Your task to perform on an android device: Go to location settings Image 0: 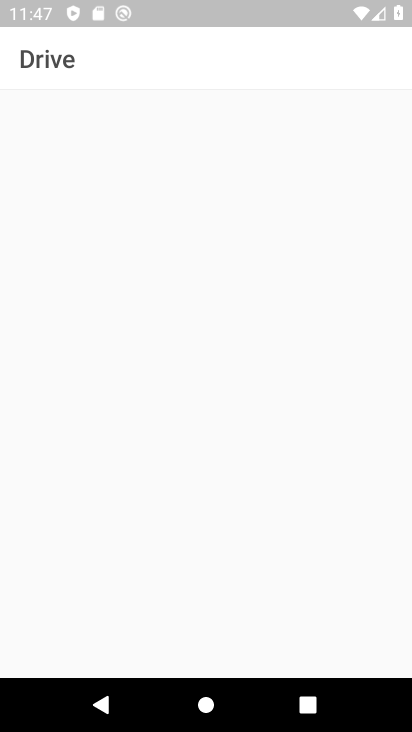
Step 0: press home button
Your task to perform on an android device: Go to location settings Image 1: 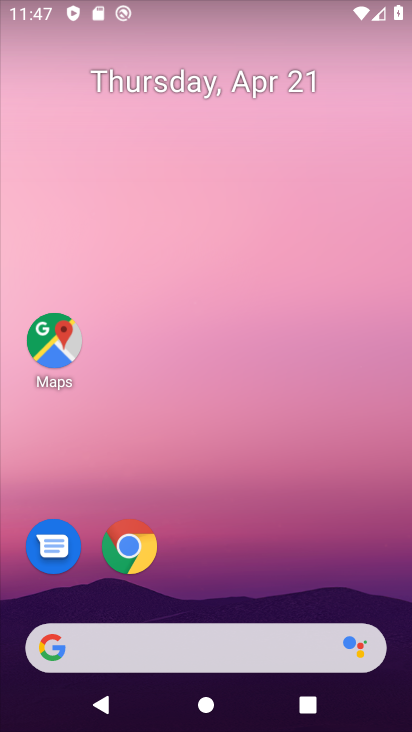
Step 1: drag from (212, 726) to (212, 82)
Your task to perform on an android device: Go to location settings Image 2: 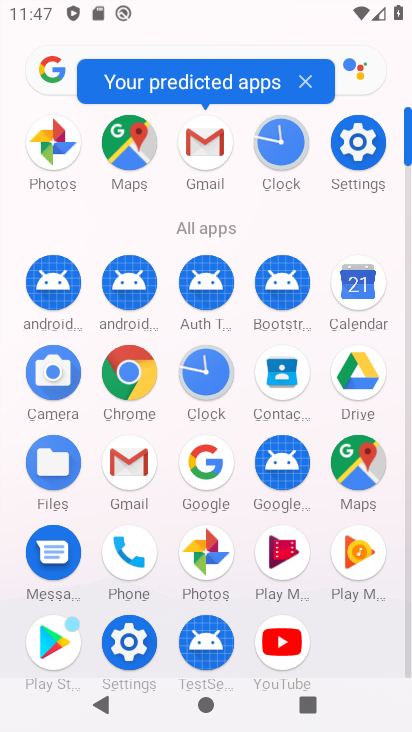
Step 2: click (357, 133)
Your task to perform on an android device: Go to location settings Image 3: 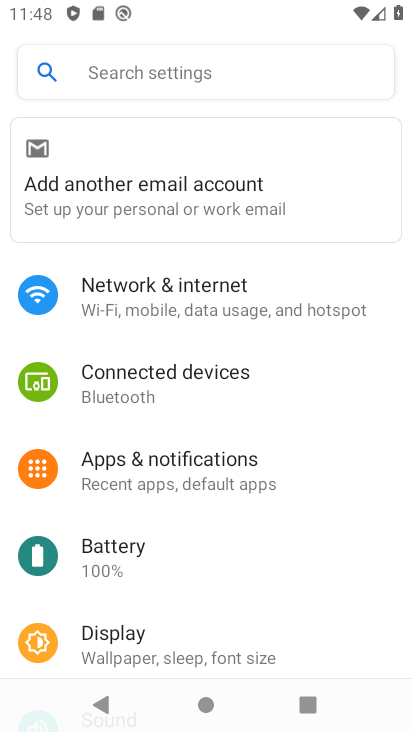
Step 3: drag from (191, 613) to (194, 269)
Your task to perform on an android device: Go to location settings Image 4: 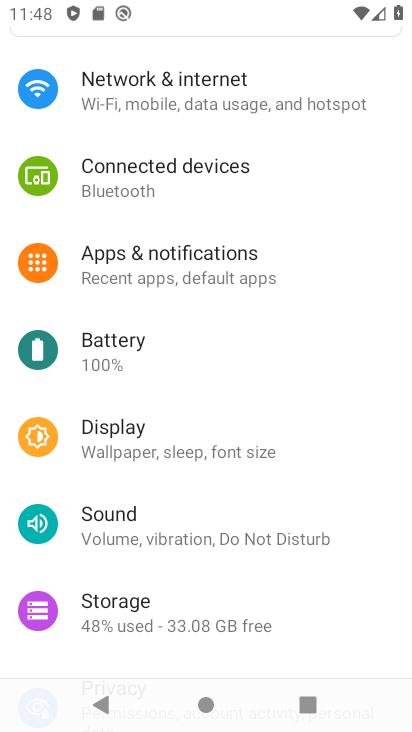
Step 4: drag from (189, 633) to (207, 276)
Your task to perform on an android device: Go to location settings Image 5: 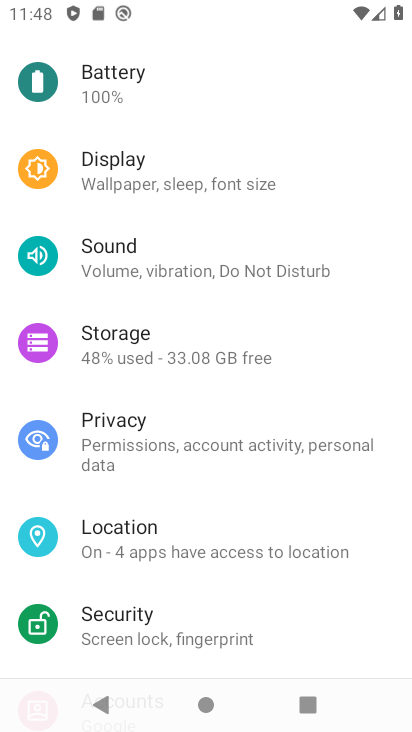
Step 5: click (130, 540)
Your task to perform on an android device: Go to location settings Image 6: 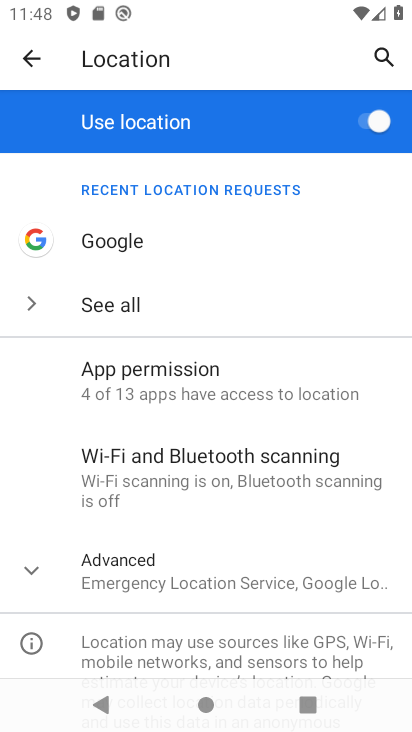
Step 6: task complete